Your task to perform on an android device: turn off sleep mode Image 0: 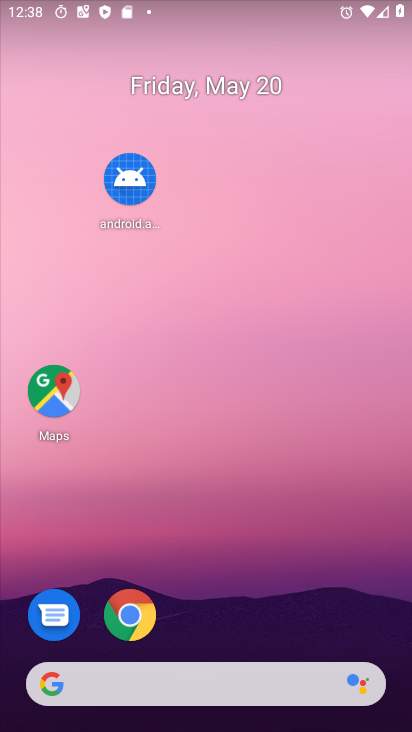
Step 0: click (124, 619)
Your task to perform on an android device: turn off sleep mode Image 1: 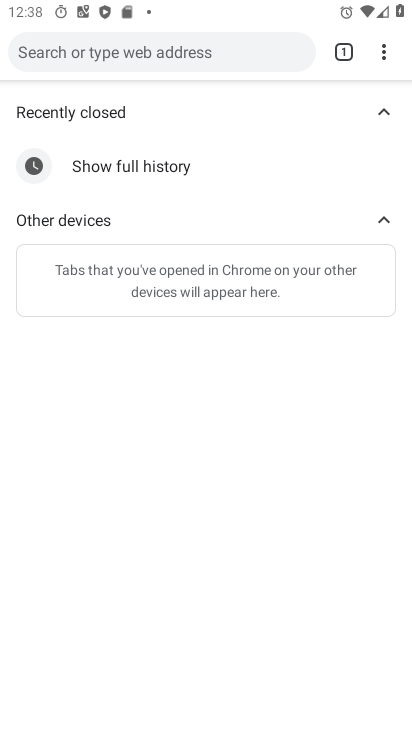
Step 1: click (345, 53)
Your task to perform on an android device: turn off sleep mode Image 2: 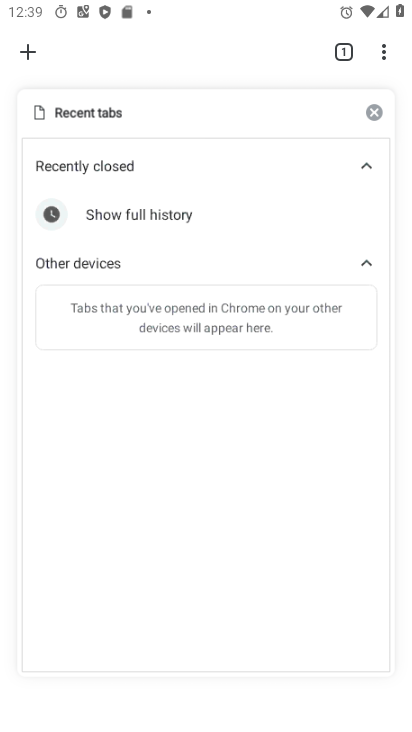
Step 2: click (377, 112)
Your task to perform on an android device: turn off sleep mode Image 3: 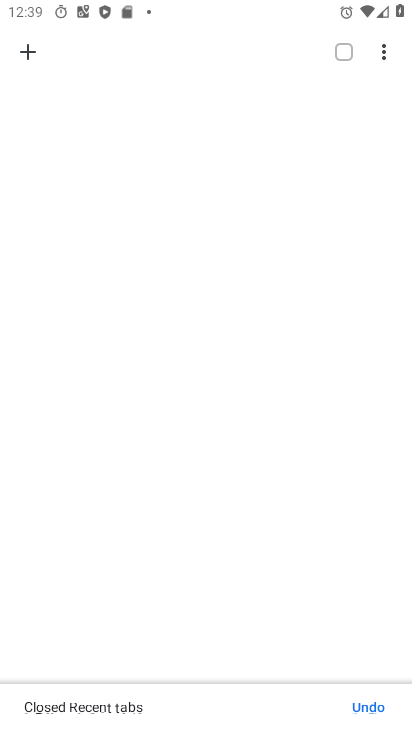
Step 3: click (28, 57)
Your task to perform on an android device: turn off sleep mode Image 4: 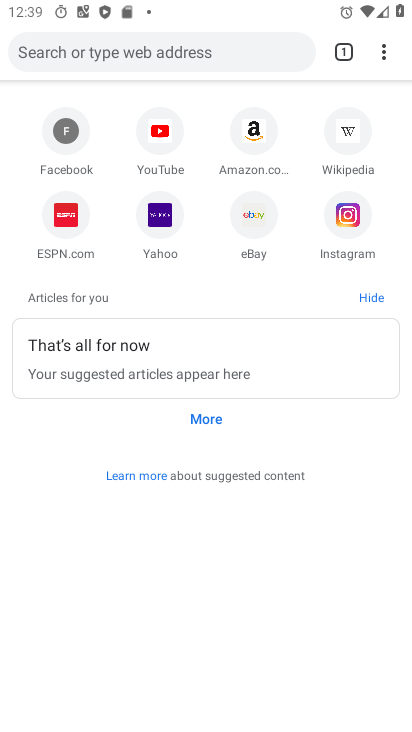
Step 4: click (168, 220)
Your task to perform on an android device: turn off sleep mode Image 5: 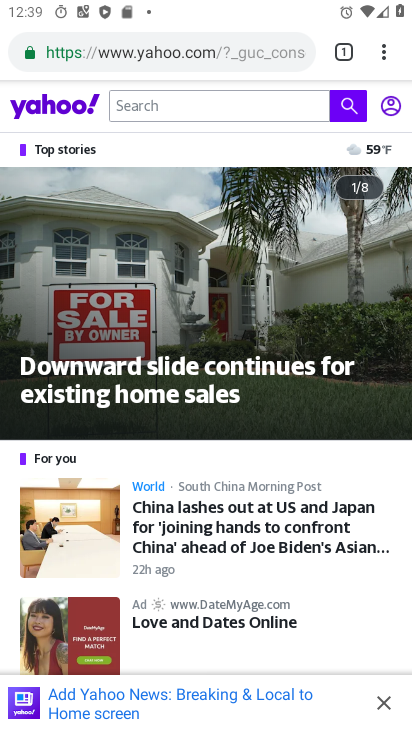
Step 5: task complete